Your task to perform on an android device: turn pop-ups off in chrome Image 0: 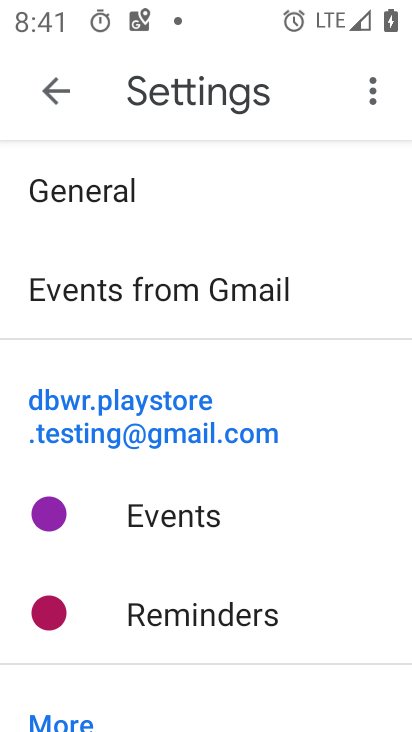
Step 0: press home button
Your task to perform on an android device: turn pop-ups off in chrome Image 1: 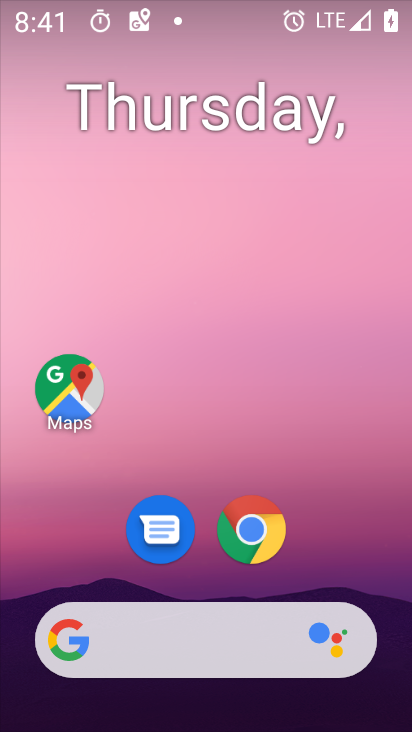
Step 1: drag from (357, 565) to (352, 209)
Your task to perform on an android device: turn pop-ups off in chrome Image 2: 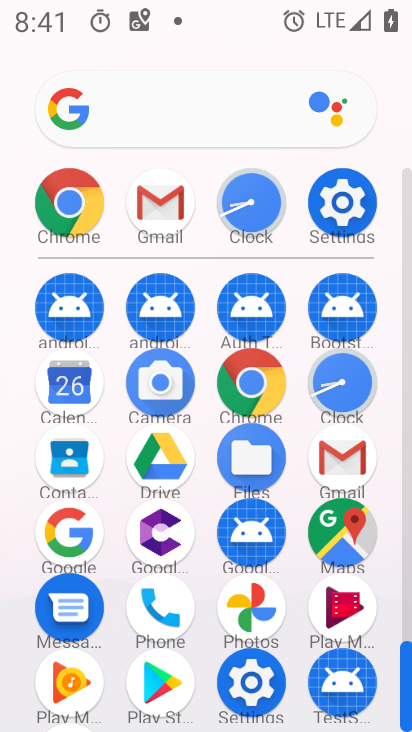
Step 2: click (279, 395)
Your task to perform on an android device: turn pop-ups off in chrome Image 3: 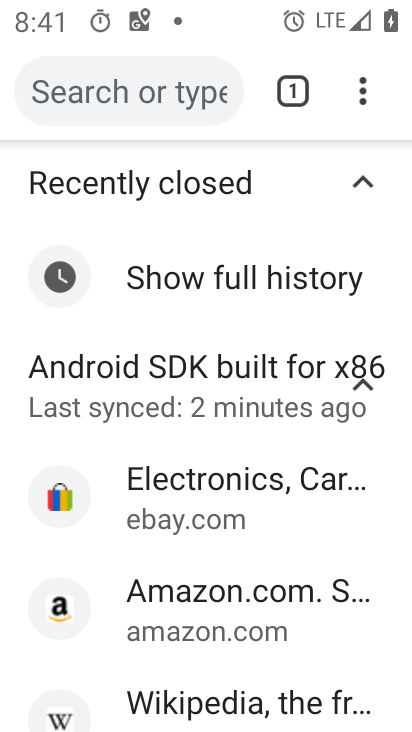
Step 3: click (362, 102)
Your task to perform on an android device: turn pop-ups off in chrome Image 4: 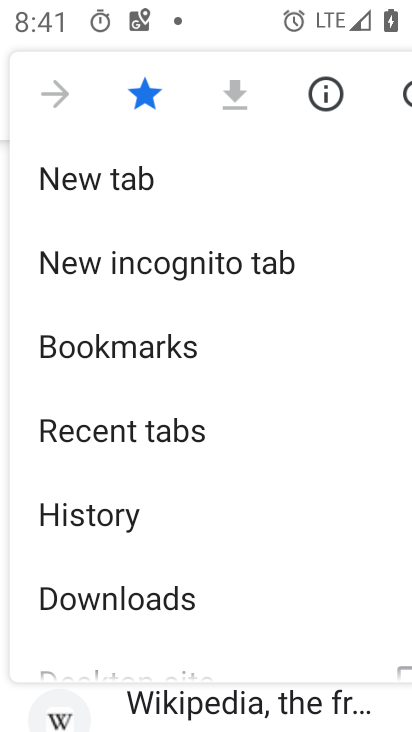
Step 4: drag from (299, 523) to (293, 410)
Your task to perform on an android device: turn pop-ups off in chrome Image 5: 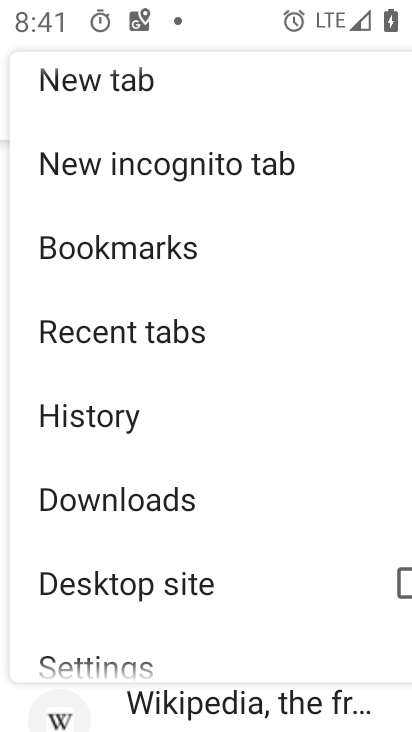
Step 5: drag from (283, 582) to (287, 440)
Your task to perform on an android device: turn pop-ups off in chrome Image 6: 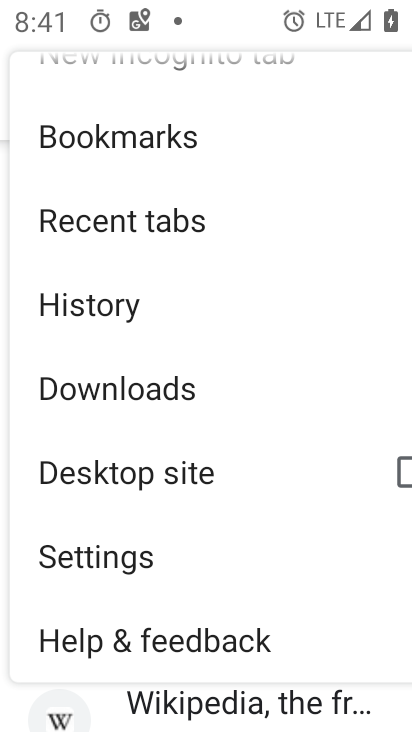
Step 6: click (148, 578)
Your task to perform on an android device: turn pop-ups off in chrome Image 7: 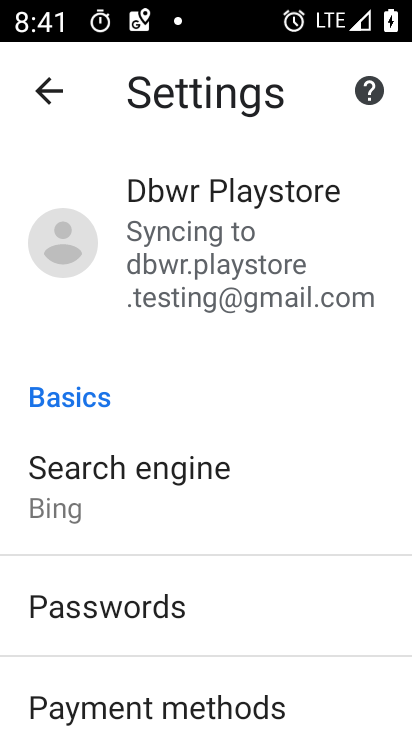
Step 7: drag from (325, 488) to (327, 371)
Your task to perform on an android device: turn pop-ups off in chrome Image 8: 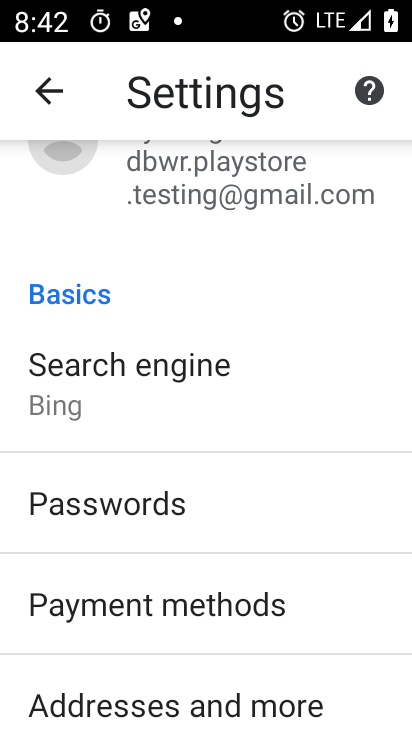
Step 8: drag from (319, 486) to (333, 382)
Your task to perform on an android device: turn pop-ups off in chrome Image 9: 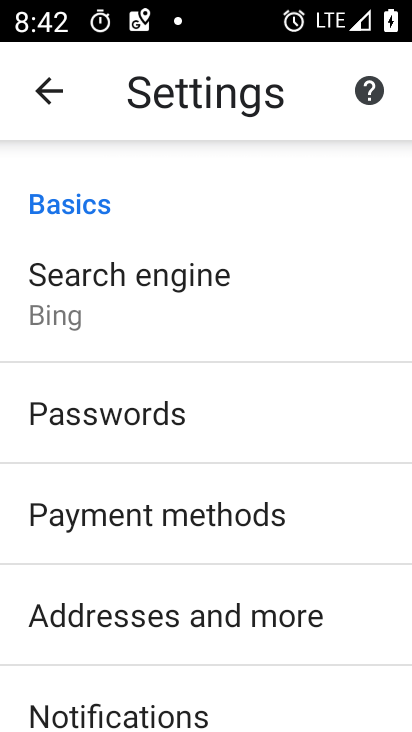
Step 9: drag from (312, 494) to (316, 386)
Your task to perform on an android device: turn pop-ups off in chrome Image 10: 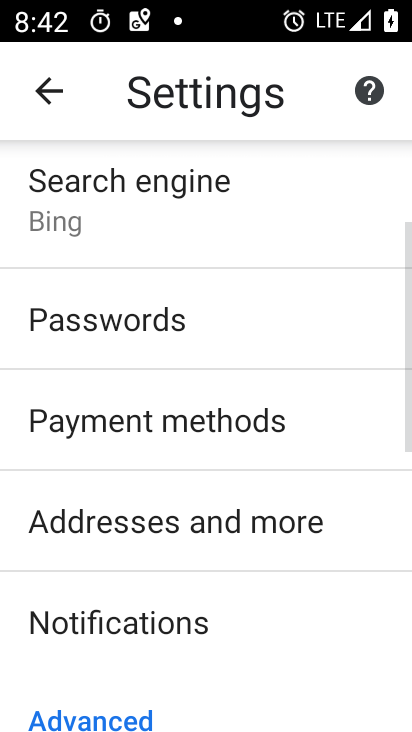
Step 10: drag from (305, 542) to (325, 368)
Your task to perform on an android device: turn pop-ups off in chrome Image 11: 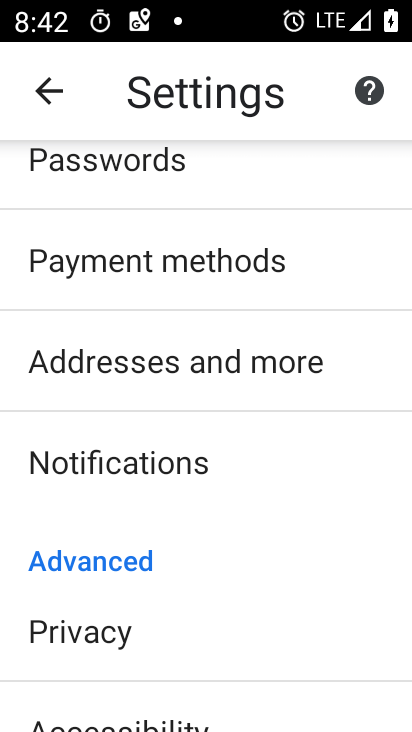
Step 11: drag from (334, 526) to (336, 404)
Your task to perform on an android device: turn pop-ups off in chrome Image 12: 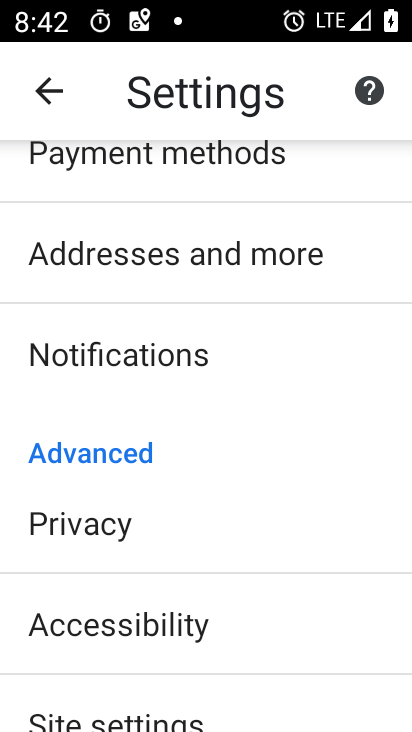
Step 12: drag from (329, 551) to (331, 405)
Your task to perform on an android device: turn pop-ups off in chrome Image 13: 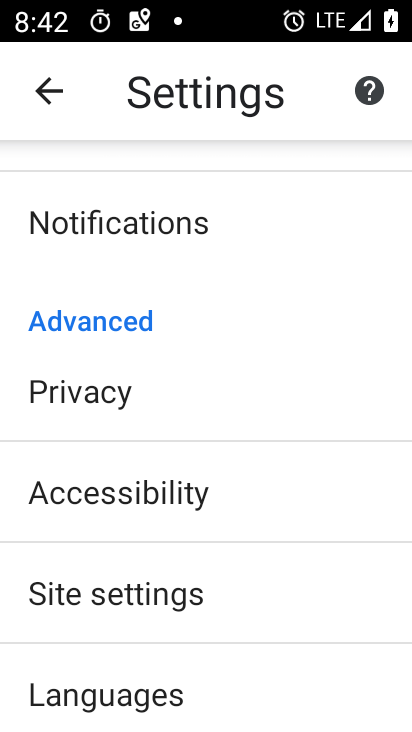
Step 13: drag from (319, 572) to (317, 445)
Your task to perform on an android device: turn pop-ups off in chrome Image 14: 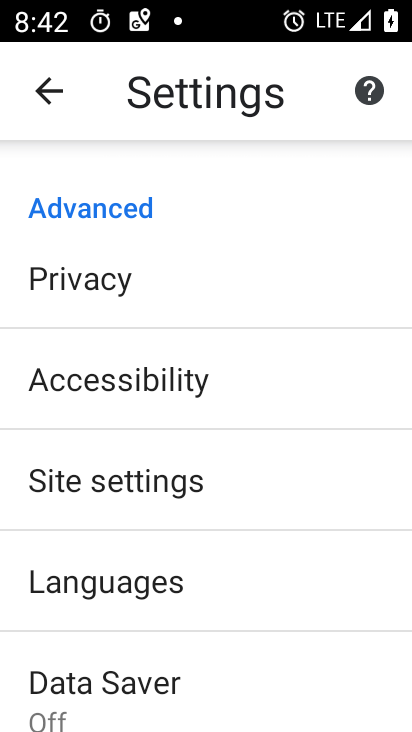
Step 14: drag from (303, 569) to (303, 458)
Your task to perform on an android device: turn pop-ups off in chrome Image 15: 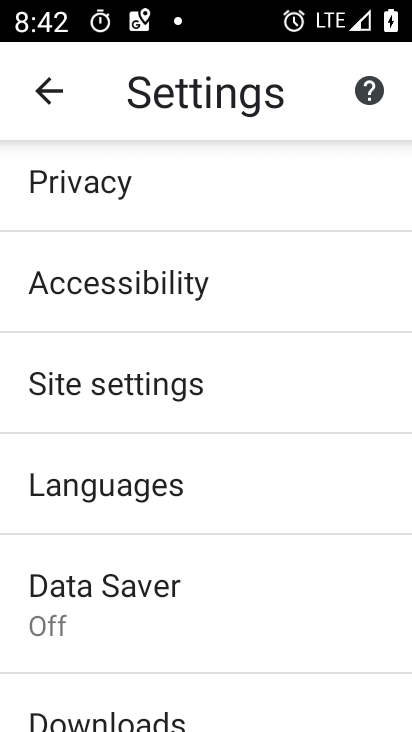
Step 15: click (295, 401)
Your task to perform on an android device: turn pop-ups off in chrome Image 16: 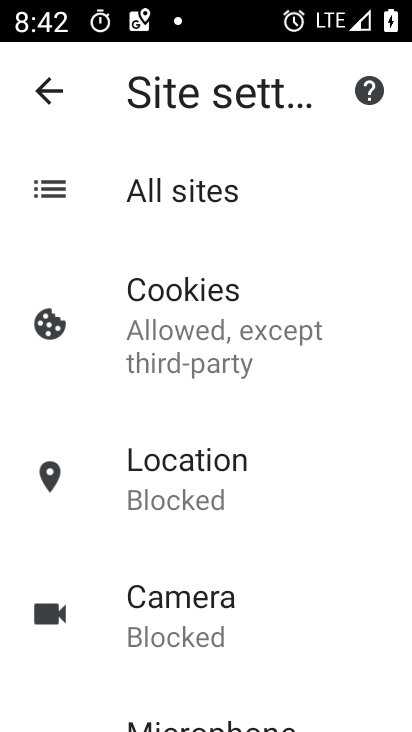
Step 16: drag from (280, 579) to (306, 412)
Your task to perform on an android device: turn pop-ups off in chrome Image 17: 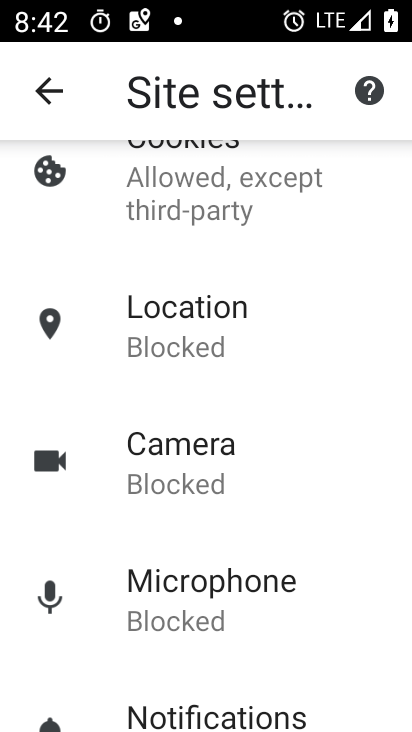
Step 17: drag from (326, 604) to (337, 415)
Your task to perform on an android device: turn pop-ups off in chrome Image 18: 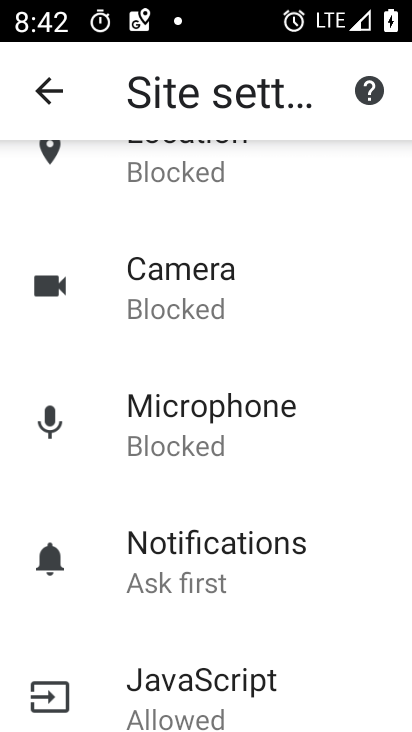
Step 18: drag from (335, 597) to (337, 417)
Your task to perform on an android device: turn pop-ups off in chrome Image 19: 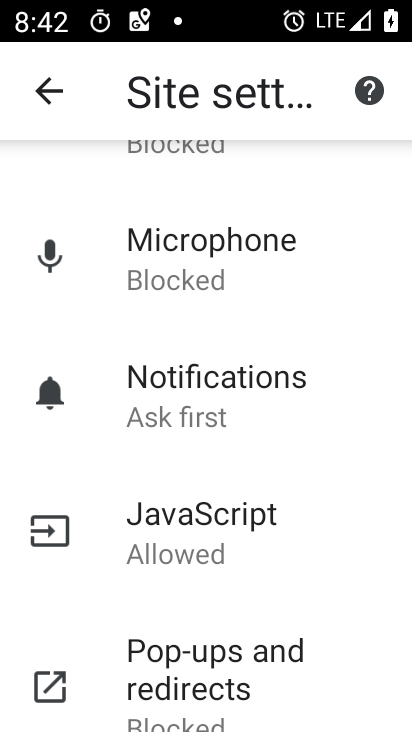
Step 19: drag from (347, 637) to (353, 491)
Your task to perform on an android device: turn pop-ups off in chrome Image 20: 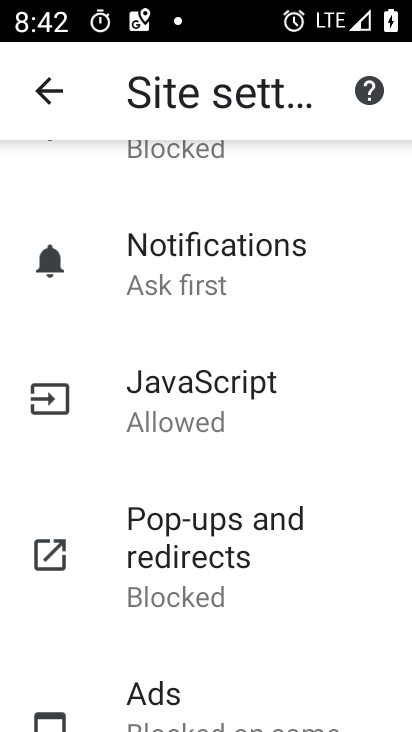
Step 20: drag from (352, 603) to (358, 493)
Your task to perform on an android device: turn pop-ups off in chrome Image 21: 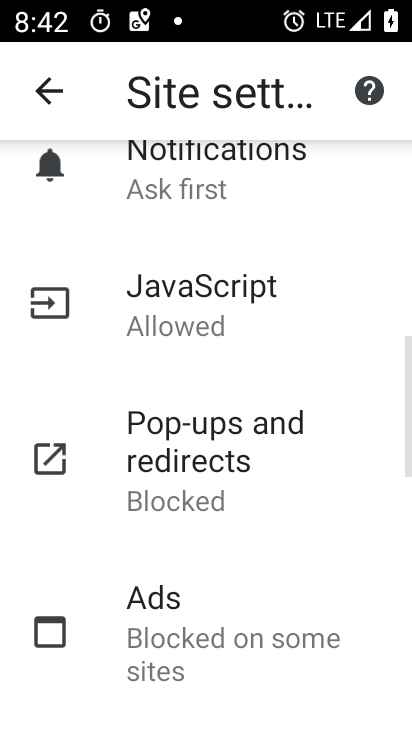
Step 21: click (242, 449)
Your task to perform on an android device: turn pop-ups off in chrome Image 22: 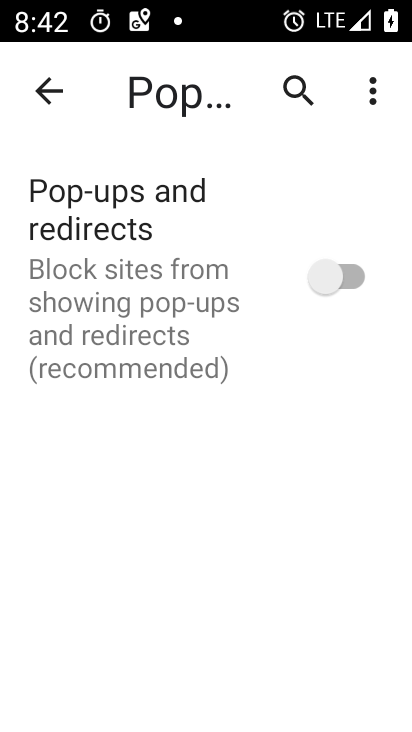
Step 22: task complete